Your task to perform on an android device: turn off notifications settings in the gmail app Image 0: 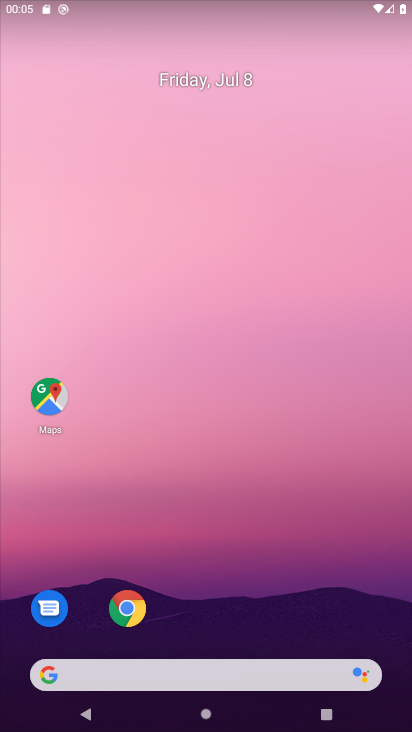
Step 0: drag from (215, 587) to (192, 148)
Your task to perform on an android device: turn off notifications settings in the gmail app Image 1: 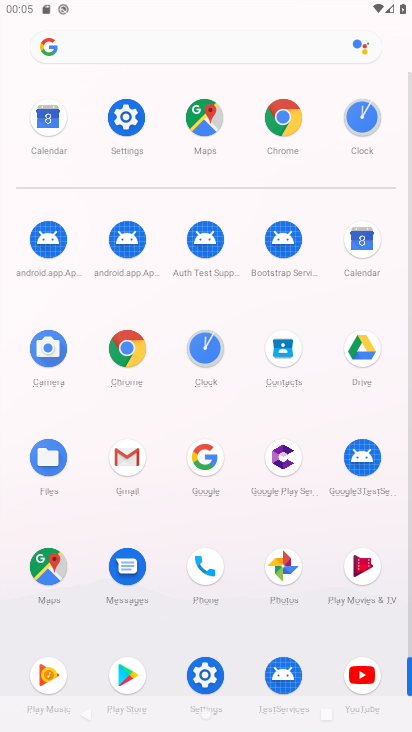
Step 1: click (128, 457)
Your task to perform on an android device: turn off notifications settings in the gmail app Image 2: 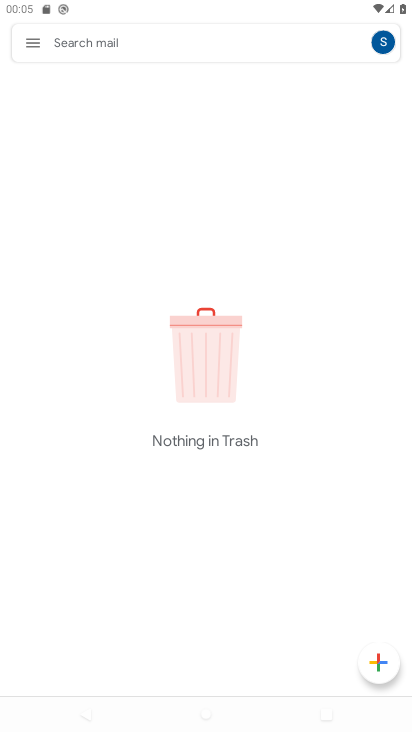
Step 2: click (34, 41)
Your task to perform on an android device: turn off notifications settings in the gmail app Image 3: 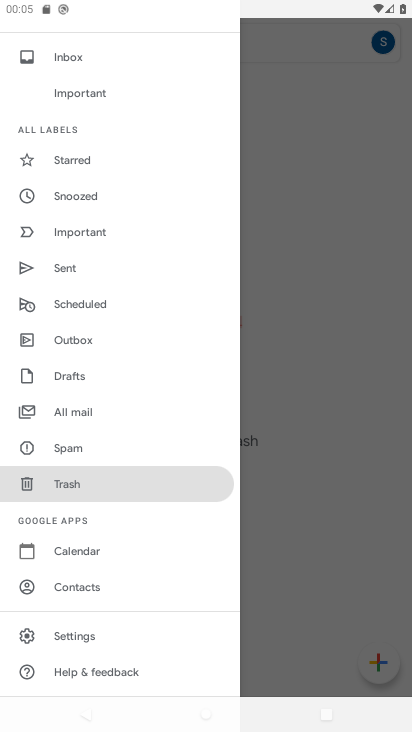
Step 3: click (90, 637)
Your task to perform on an android device: turn off notifications settings in the gmail app Image 4: 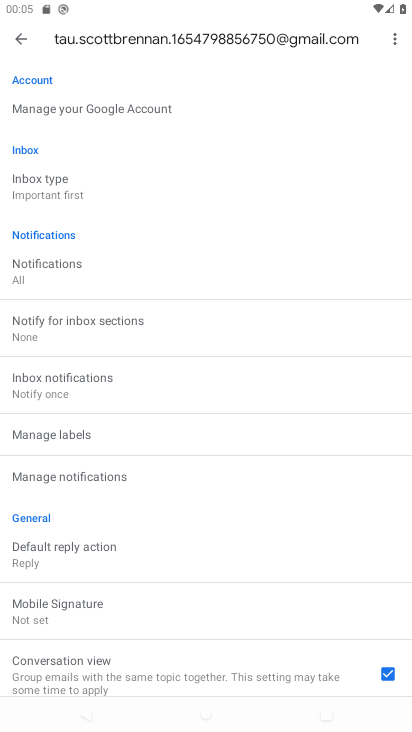
Step 4: click (72, 265)
Your task to perform on an android device: turn off notifications settings in the gmail app Image 5: 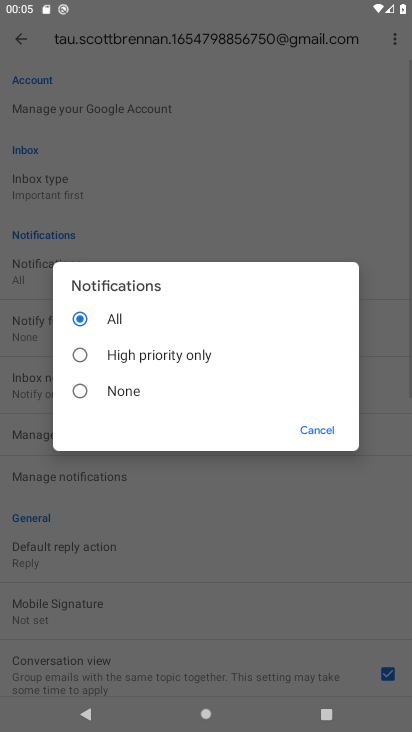
Step 5: click (121, 391)
Your task to perform on an android device: turn off notifications settings in the gmail app Image 6: 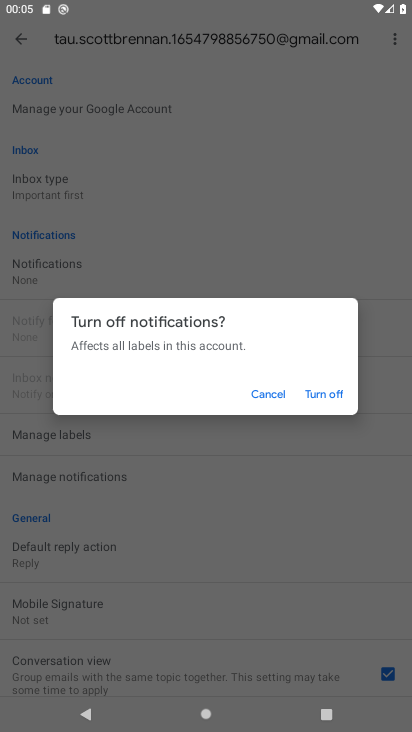
Step 6: click (304, 387)
Your task to perform on an android device: turn off notifications settings in the gmail app Image 7: 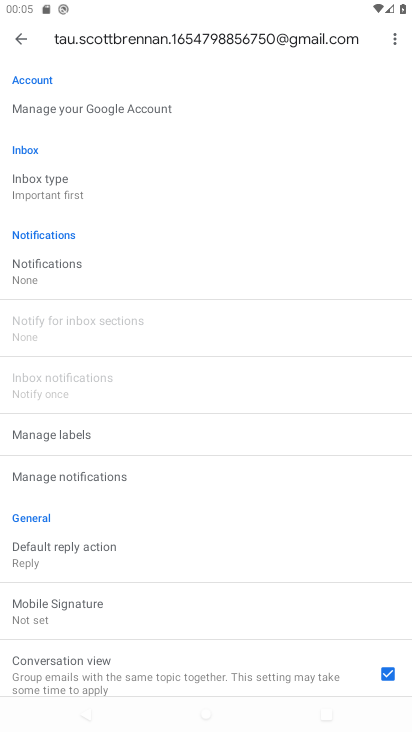
Step 7: task complete